Your task to perform on an android device: turn on javascript in the chrome app Image 0: 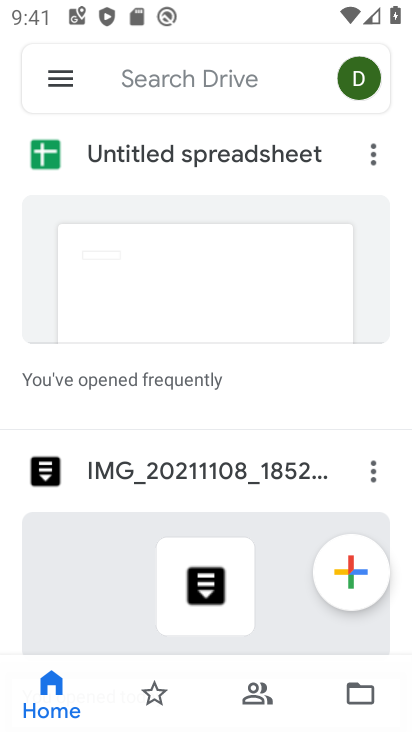
Step 0: press home button
Your task to perform on an android device: turn on javascript in the chrome app Image 1: 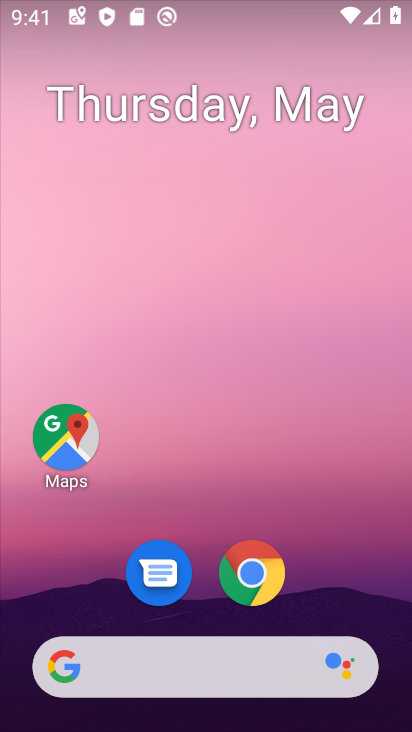
Step 1: click (233, 558)
Your task to perform on an android device: turn on javascript in the chrome app Image 2: 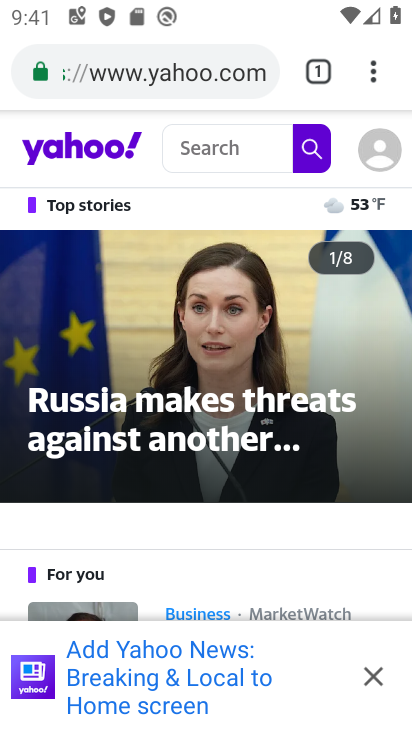
Step 2: drag from (376, 68) to (145, 563)
Your task to perform on an android device: turn on javascript in the chrome app Image 3: 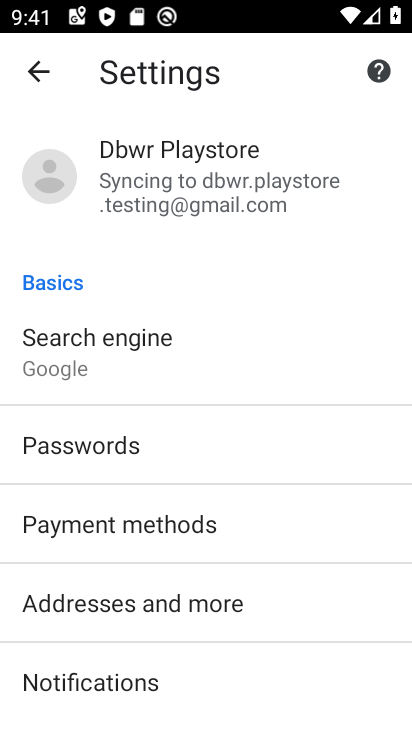
Step 3: drag from (194, 633) to (205, 327)
Your task to perform on an android device: turn on javascript in the chrome app Image 4: 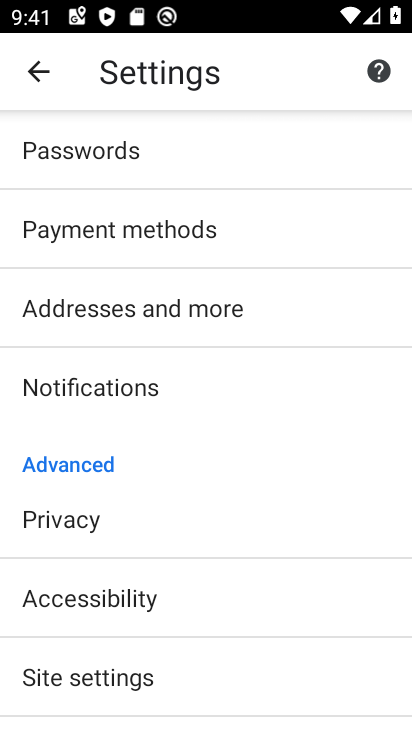
Step 4: drag from (148, 657) to (148, 372)
Your task to perform on an android device: turn on javascript in the chrome app Image 5: 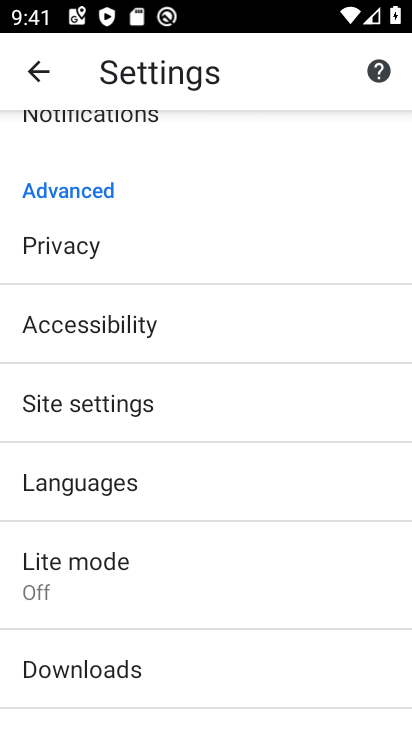
Step 5: click (128, 420)
Your task to perform on an android device: turn on javascript in the chrome app Image 6: 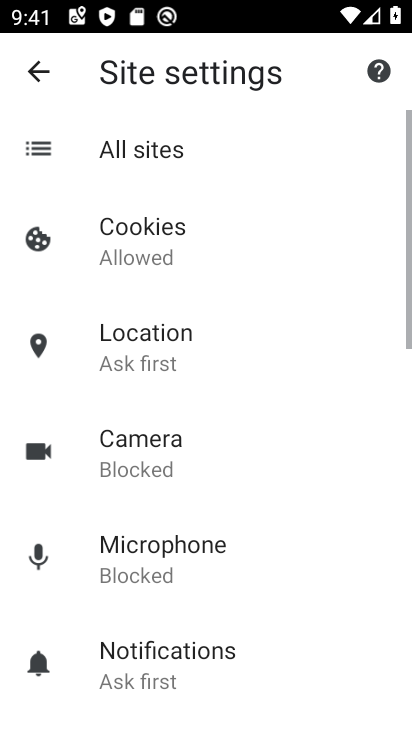
Step 6: drag from (190, 586) to (182, 277)
Your task to perform on an android device: turn on javascript in the chrome app Image 7: 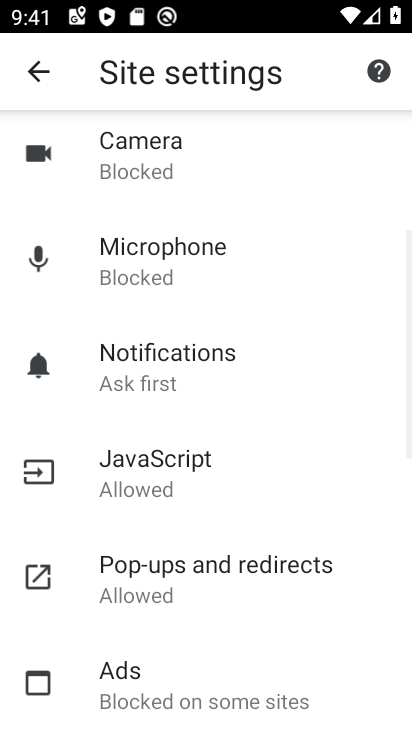
Step 7: click (198, 461)
Your task to perform on an android device: turn on javascript in the chrome app Image 8: 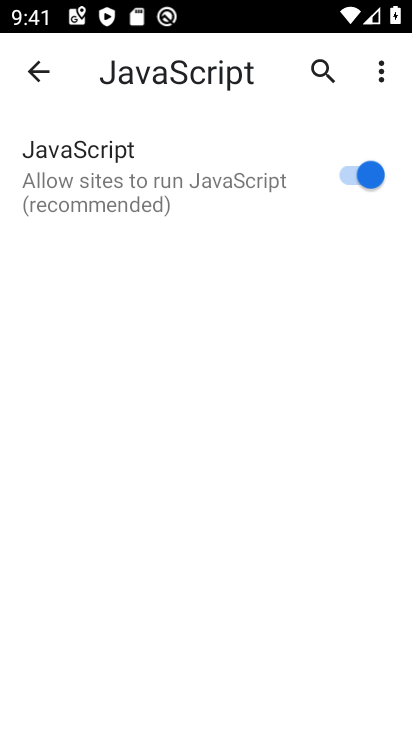
Step 8: task complete